Your task to perform on an android device: Open location settings Image 0: 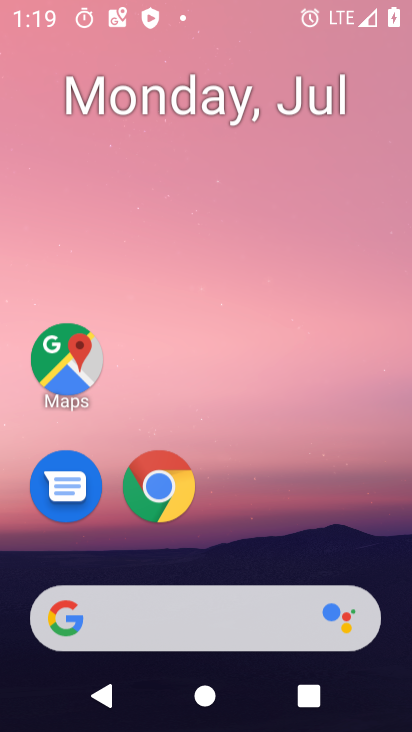
Step 0: press home button
Your task to perform on an android device: Open location settings Image 1: 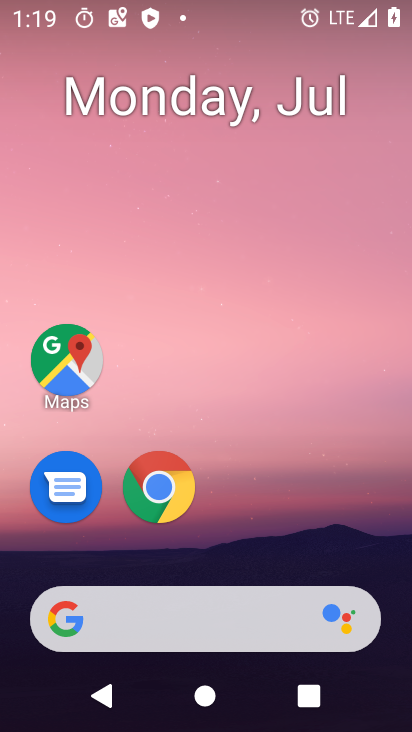
Step 1: drag from (339, 566) to (295, 99)
Your task to perform on an android device: Open location settings Image 2: 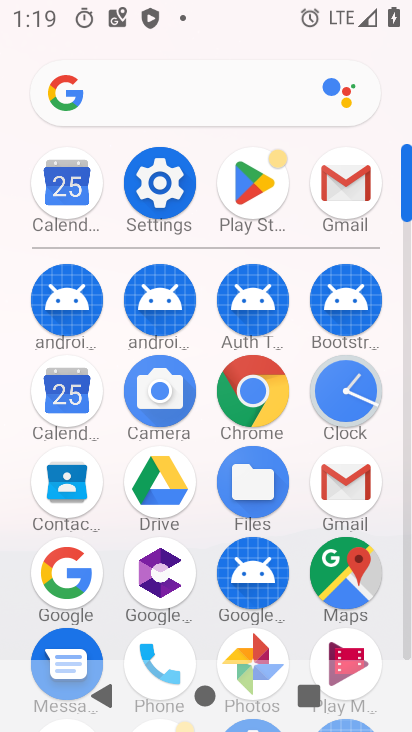
Step 2: click (152, 165)
Your task to perform on an android device: Open location settings Image 3: 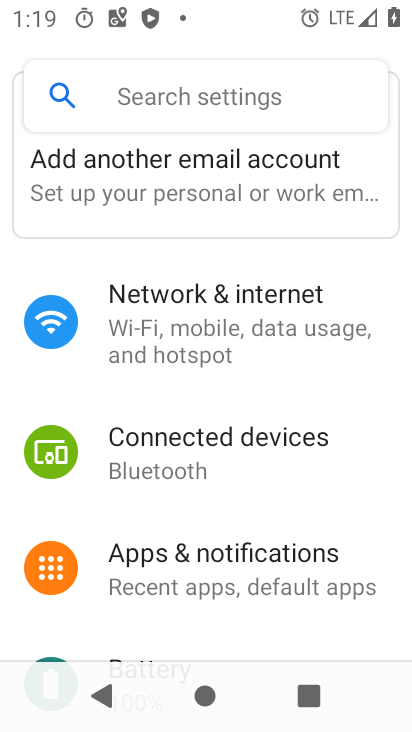
Step 3: drag from (213, 522) to (203, 147)
Your task to perform on an android device: Open location settings Image 4: 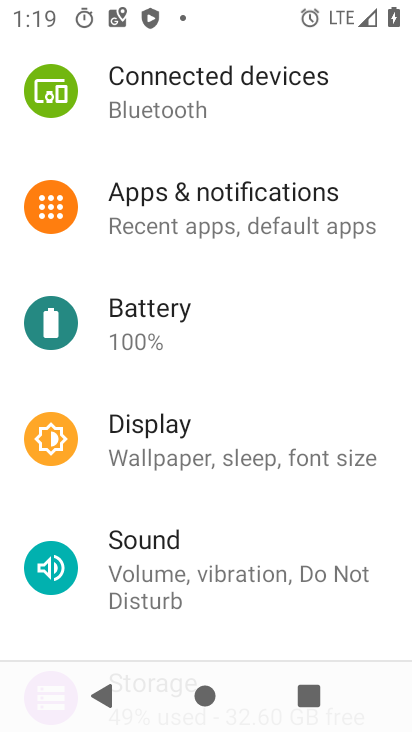
Step 4: drag from (207, 634) to (268, 231)
Your task to perform on an android device: Open location settings Image 5: 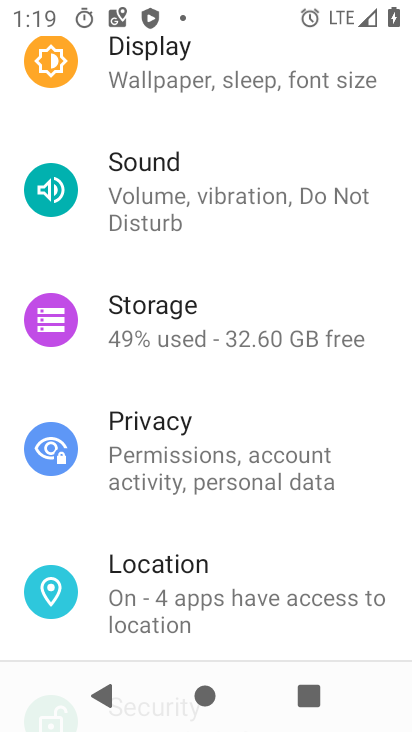
Step 5: click (218, 580)
Your task to perform on an android device: Open location settings Image 6: 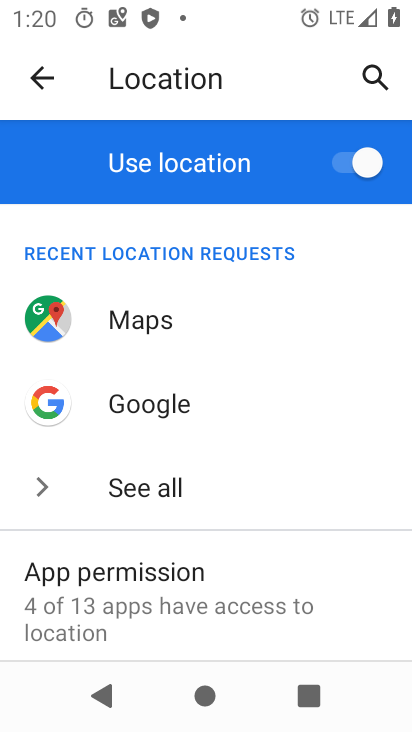
Step 6: task complete